Your task to perform on an android device: delete the emails in spam in the gmail app Image 0: 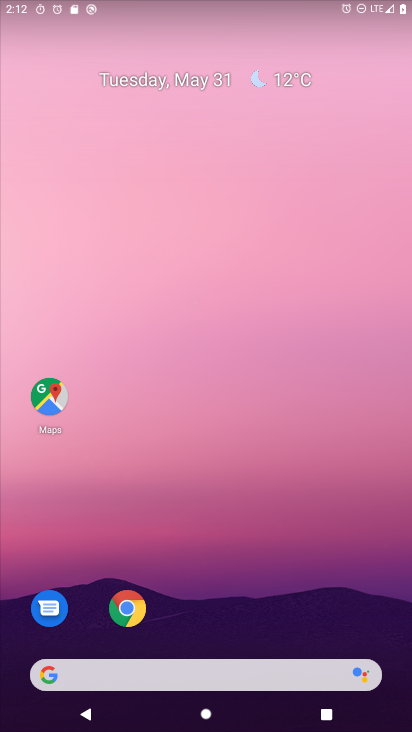
Step 0: drag from (315, 631) to (303, 11)
Your task to perform on an android device: delete the emails in spam in the gmail app Image 1: 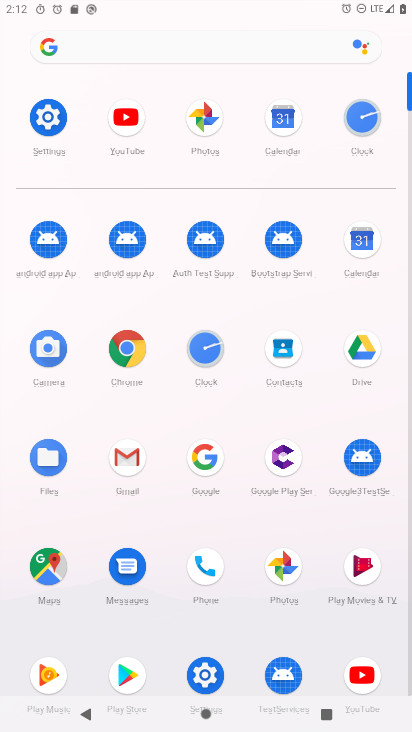
Step 1: click (127, 463)
Your task to perform on an android device: delete the emails in spam in the gmail app Image 2: 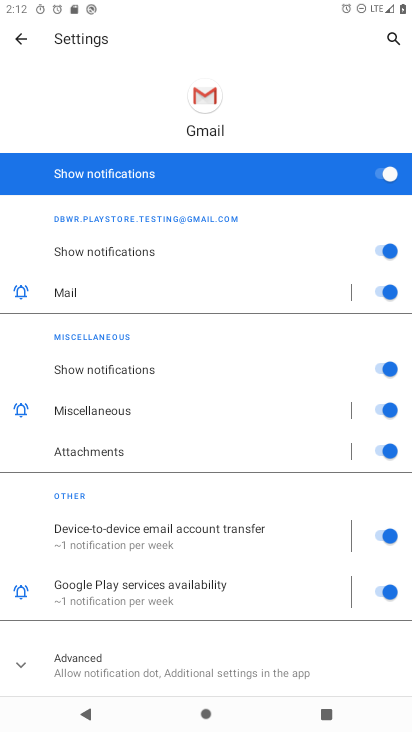
Step 2: click (17, 38)
Your task to perform on an android device: delete the emails in spam in the gmail app Image 3: 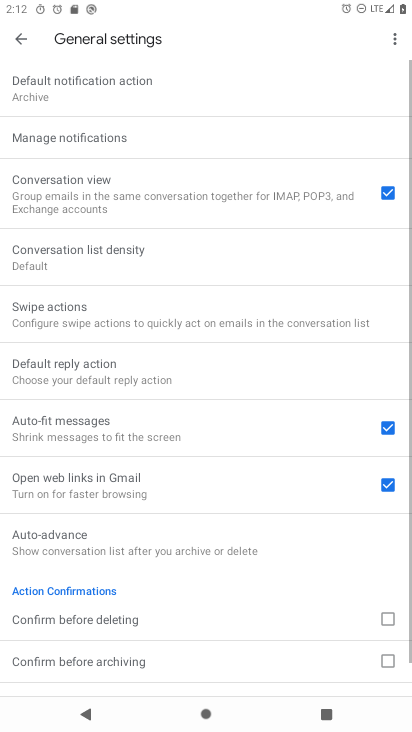
Step 3: click (17, 38)
Your task to perform on an android device: delete the emails in spam in the gmail app Image 4: 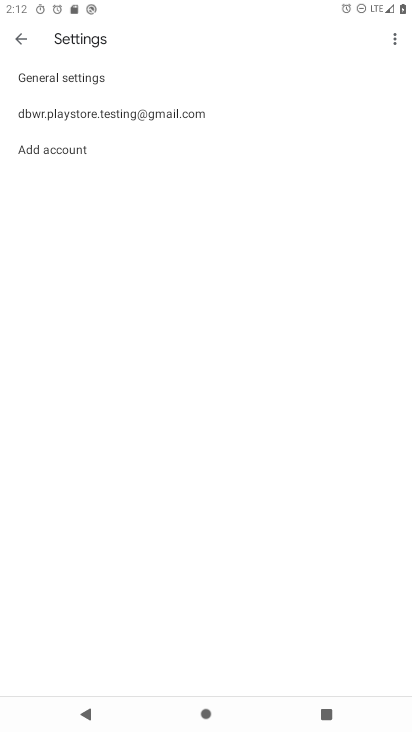
Step 4: click (14, 40)
Your task to perform on an android device: delete the emails in spam in the gmail app Image 5: 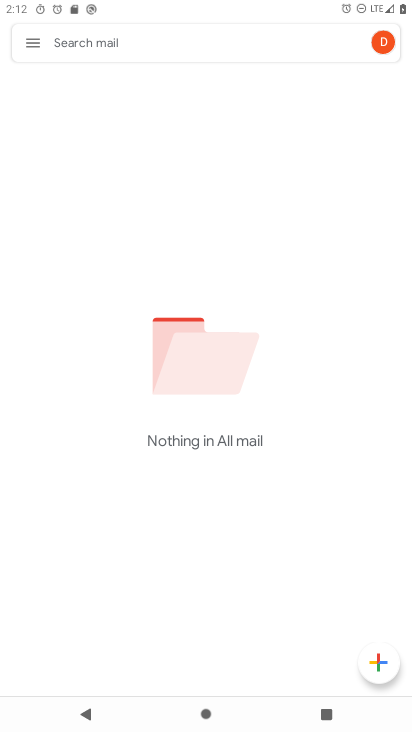
Step 5: click (26, 42)
Your task to perform on an android device: delete the emails in spam in the gmail app Image 6: 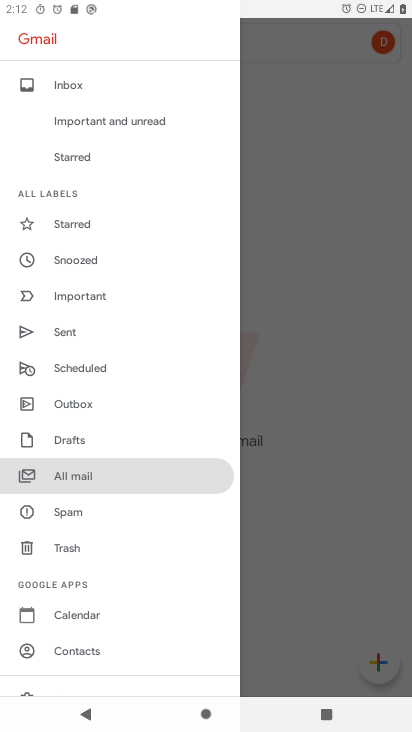
Step 6: click (67, 517)
Your task to perform on an android device: delete the emails in spam in the gmail app Image 7: 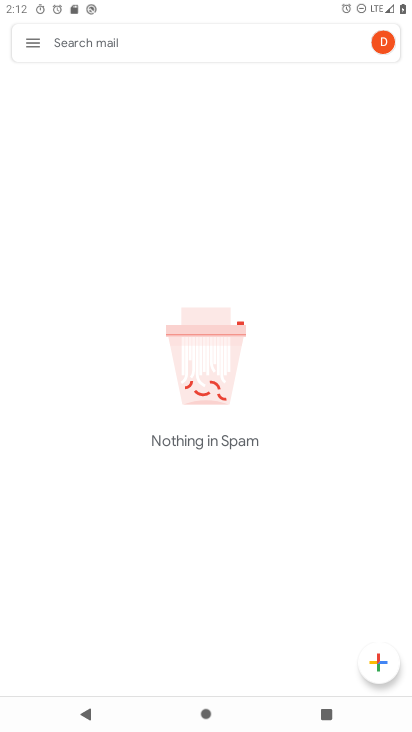
Step 7: task complete